Your task to perform on an android device: Check the news Image 0: 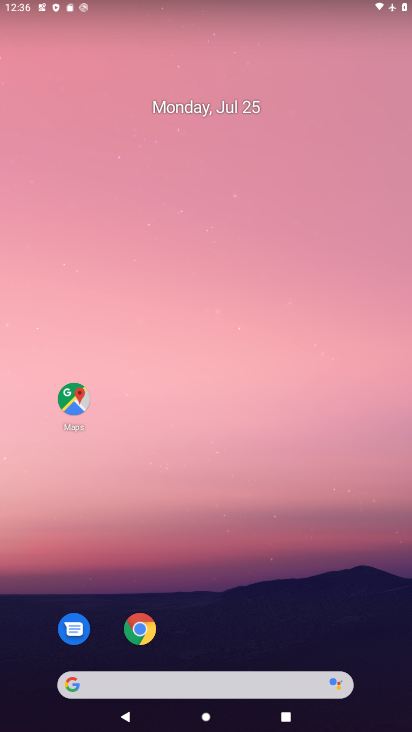
Step 0: click (262, 671)
Your task to perform on an android device: Check the news Image 1: 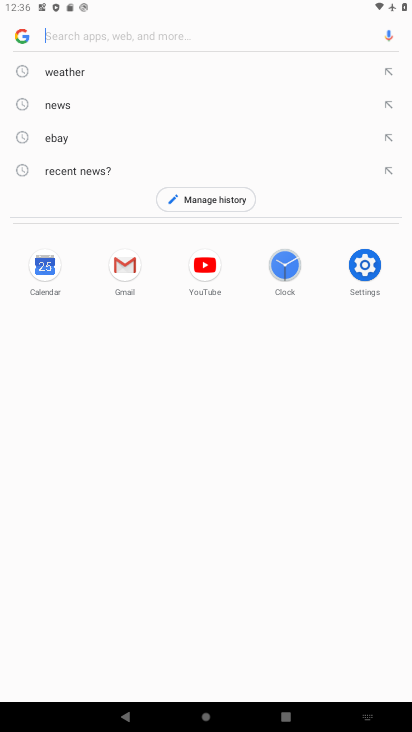
Step 1: click (69, 72)
Your task to perform on an android device: Check the news Image 2: 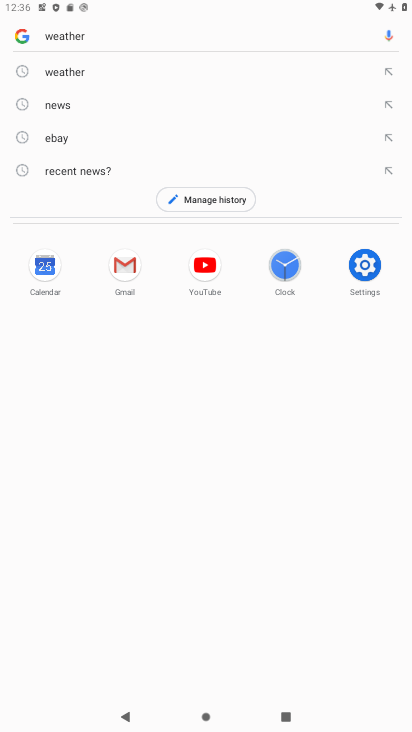
Step 2: task complete